Your task to perform on an android device: empty trash in google photos Image 0: 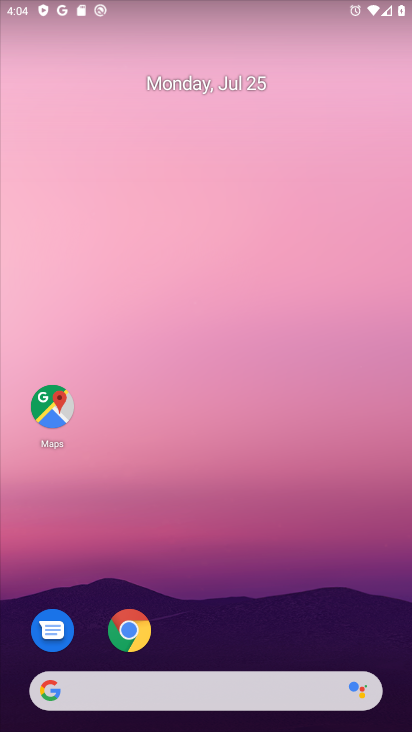
Step 0: drag from (169, 691) to (200, 82)
Your task to perform on an android device: empty trash in google photos Image 1: 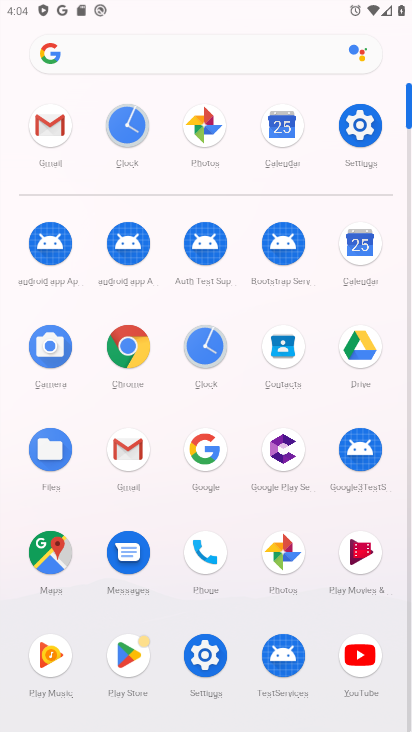
Step 1: click (203, 124)
Your task to perform on an android device: empty trash in google photos Image 2: 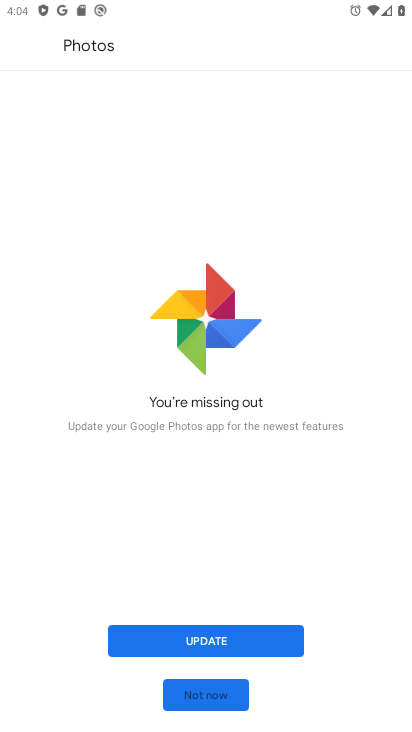
Step 2: click (194, 644)
Your task to perform on an android device: empty trash in google photos Image 3: 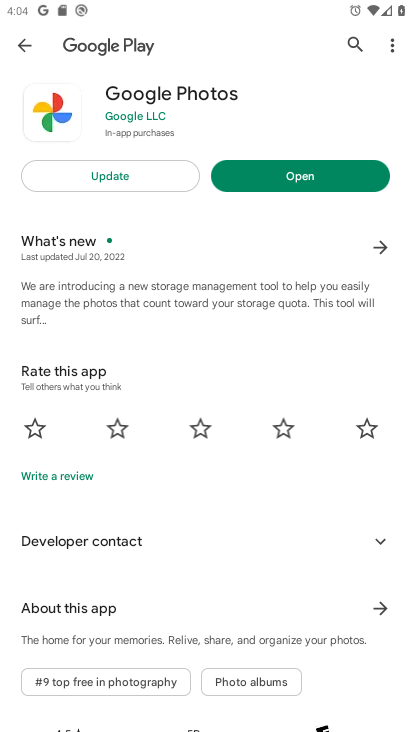
Step 3: click (112, 178)
Your task to perform on an android device: empty trash in google photos Image 4: 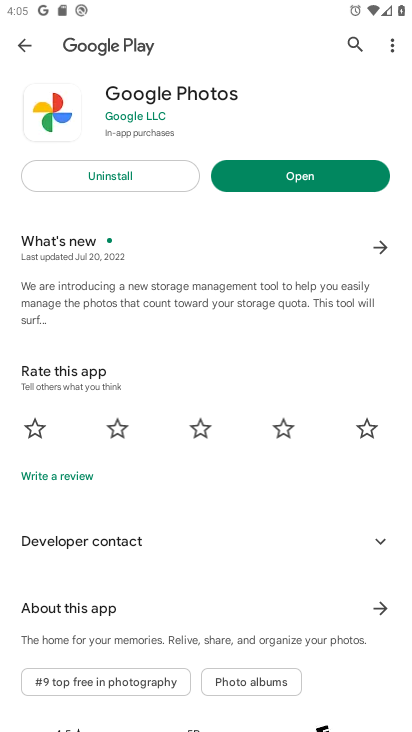
Step 4: click (290, 169)
Your task to perform on an android device: empty trash in google photos Image 5: 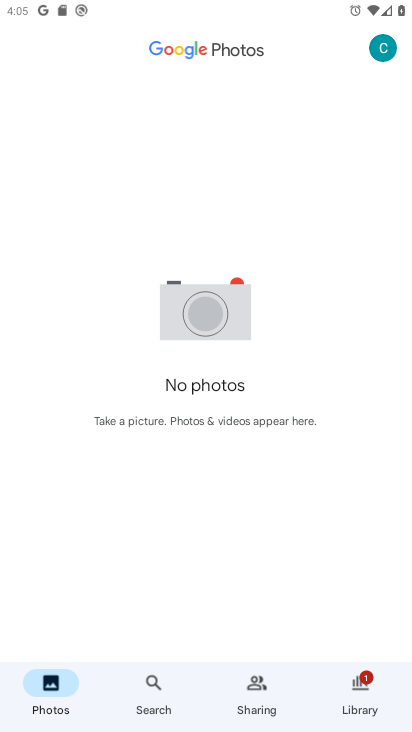
Step 5: click (358, 683)
Your task to perform on an android device: empty trash in google photos Image 6: 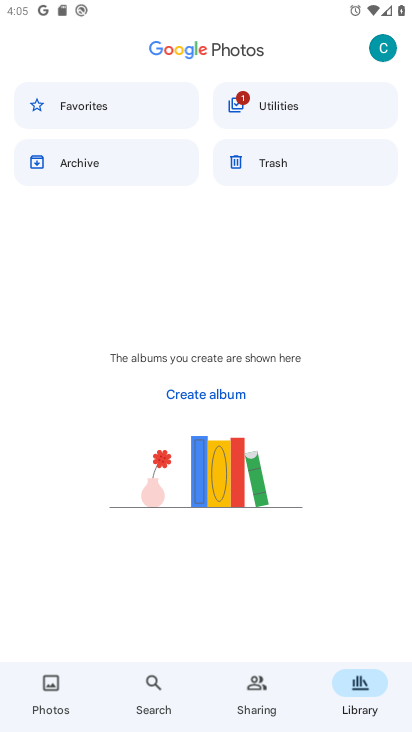
Step 6: click (261, 158)
Your task to perform on an android device: empty trash in google photos Image 7: 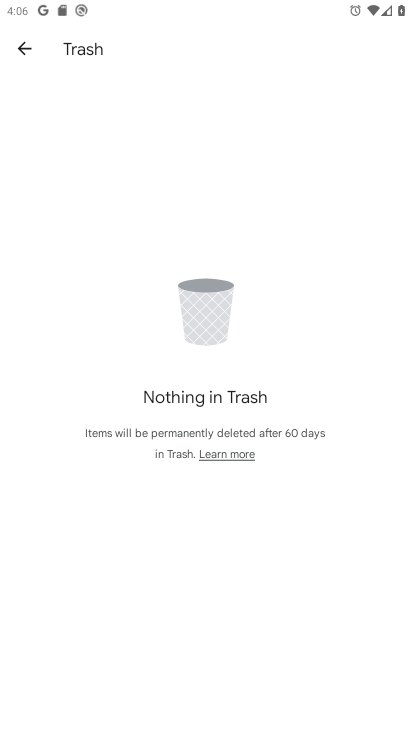
Step 7: task complete